Your task to perform on an android device: turn on javascript in the chrome app Image 0: 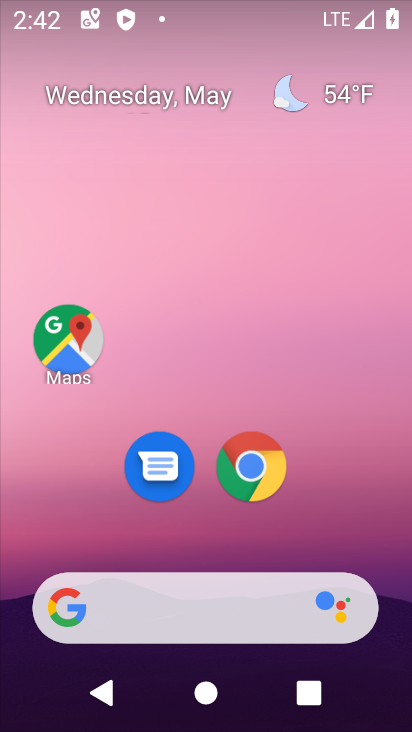
Step 0: click (268, 450)
Your task to perform on an android device: turn on javascript in the chrome app Image 1: 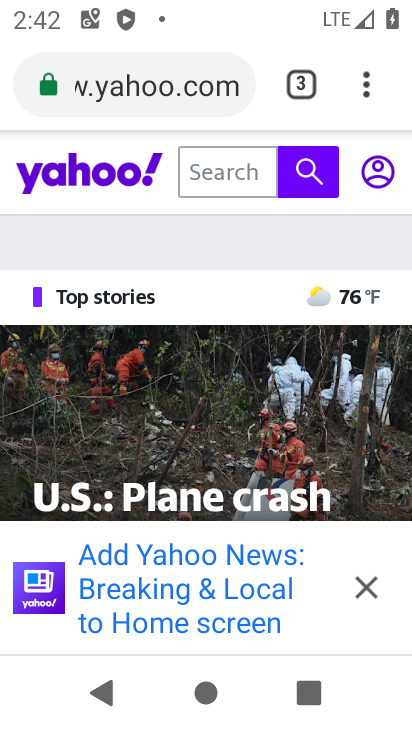
Step 1: click (374, 93)
Your task to perform on an android device: turn on javascript in the chrome app Image 2: 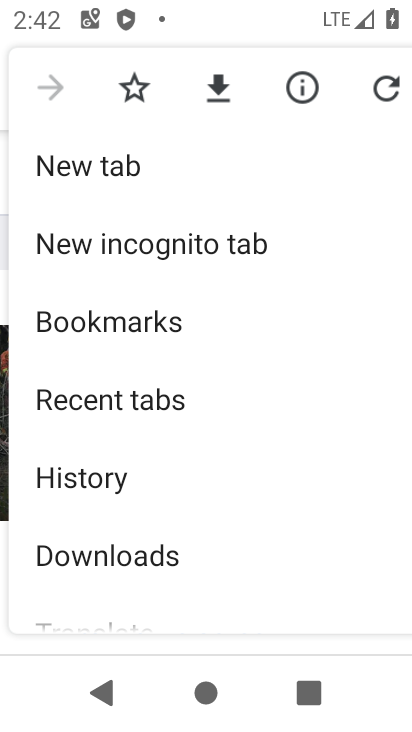
Step 2: click (370, 98)
Your task to perform on an android device: turn on javascript in the chrome app Image 3: 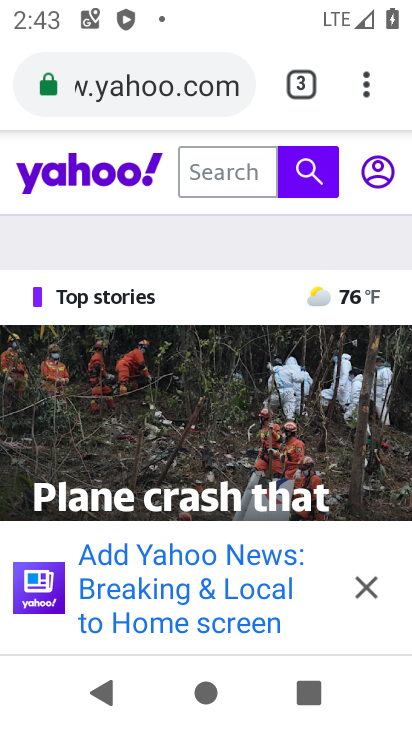
Step 3: click (370, 98)
Your task to perform on an android device: turn on javascript in the chrome app Image 4: 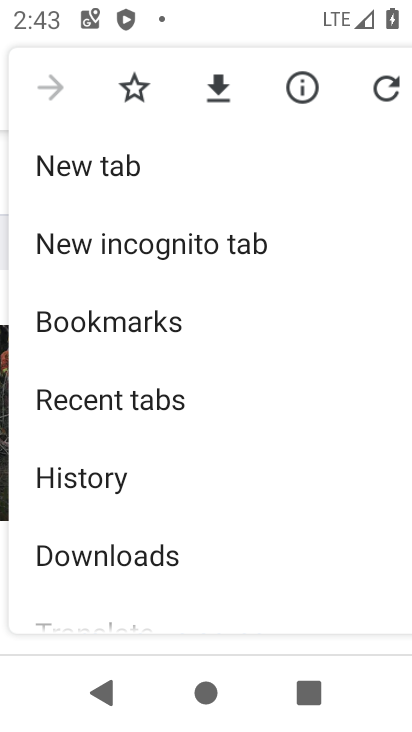
Step 4: drag from (307, 514) to (274, 276)
Your task to perform on an android device: turn on javascript in the chrome app Image 5: 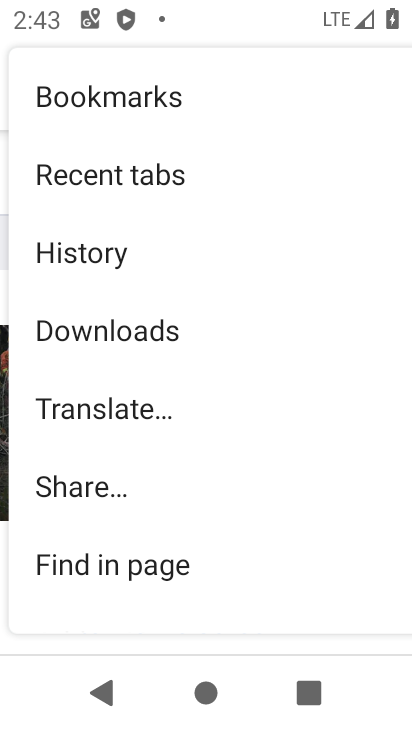
Step 5: drag from (272, 513) to (253, 53)
Your task to perform on an android device: turn on javascript in the chrome app Image 6: 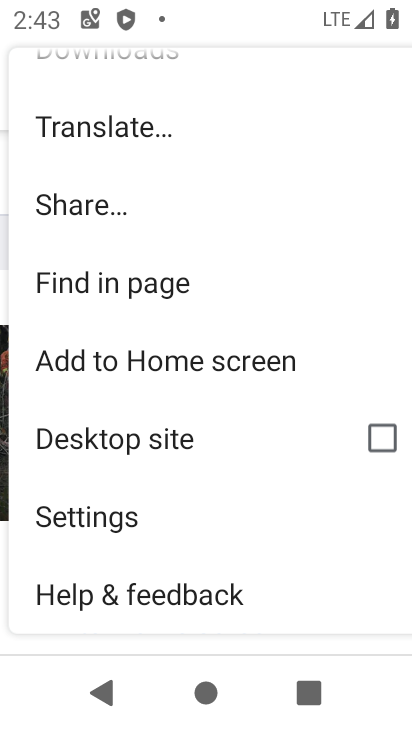
Step 6: click (242, 522)
Your task to perform on an android device: turn on javascript in the chrome app Image 7: 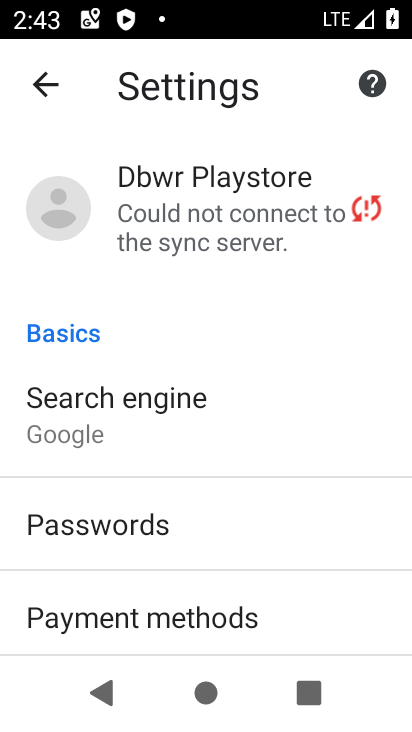
Step 7: drag from (280, 631) to (214, 154)
Your task to perform on an android device: turn on javascript in the chrome app Image 8: 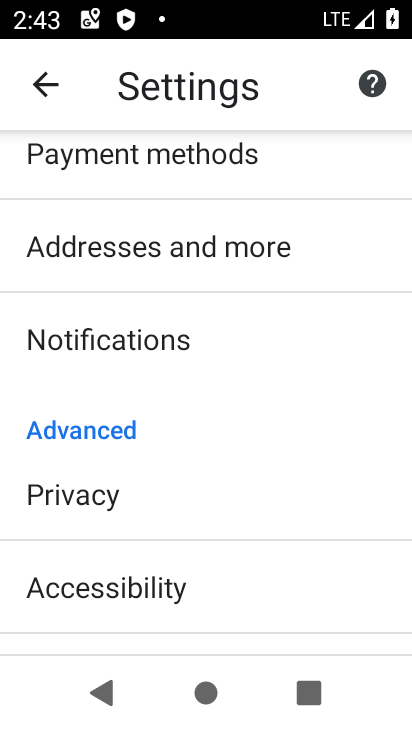
Step 8: drag from (169, 503) to (152, 168)
Your task to perform on an android device: turn on javascript in the chrome app Image 9: 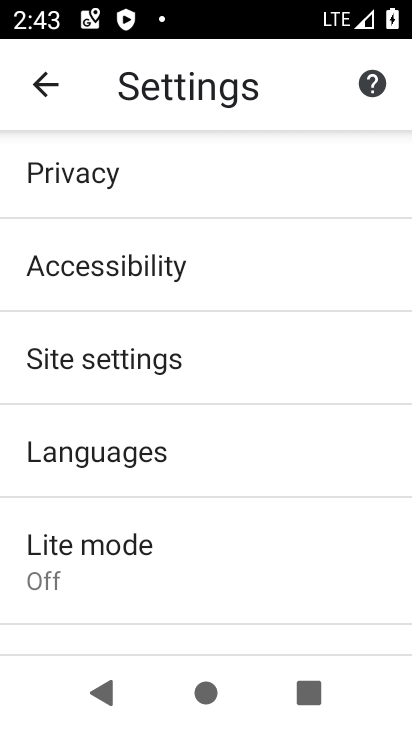
Step 9: click (208, 352)
Your task to perform on an android device: turn on javascript in the chrome app Image 10: 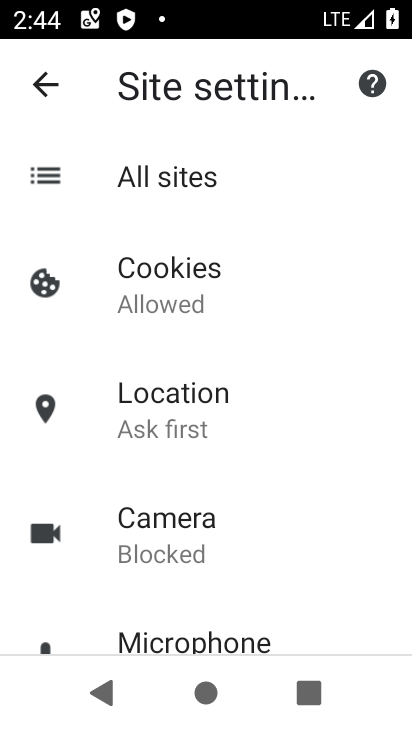
Step 10: drag from (294, 571) to (264, 213)
Your task to perform on an android device: turn on javascript in the chrome app Image 11: 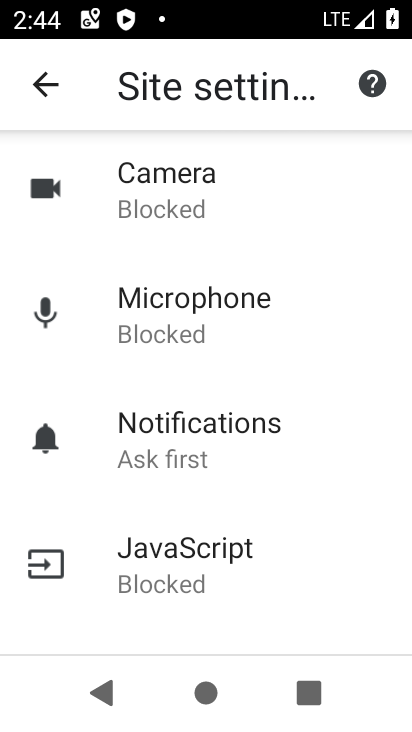
Step 11: click (330, 554)
Your task to perform on an android device: turn on javascript in the chrome app Image 12: 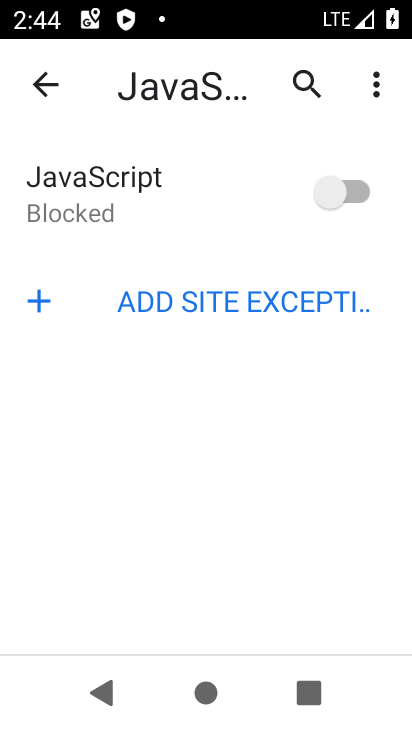
Step 12: click (344, 200)
Your task to perform on an android device: turn on javascript in the chrome app Image 13: 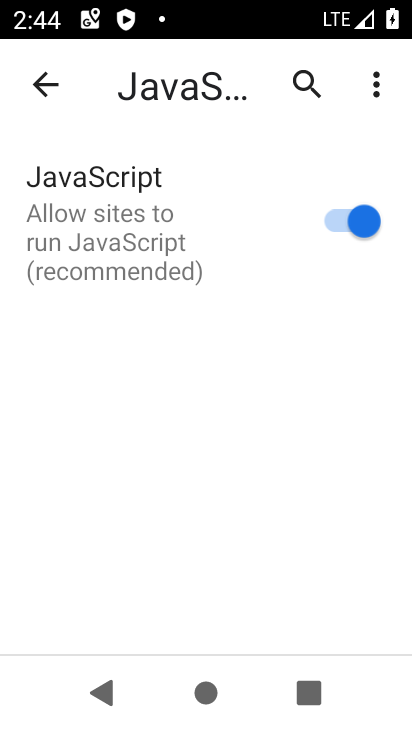
Step 13: task complete